Your task to perform on an android device: uninstall "Nova Launcher" Image 0: 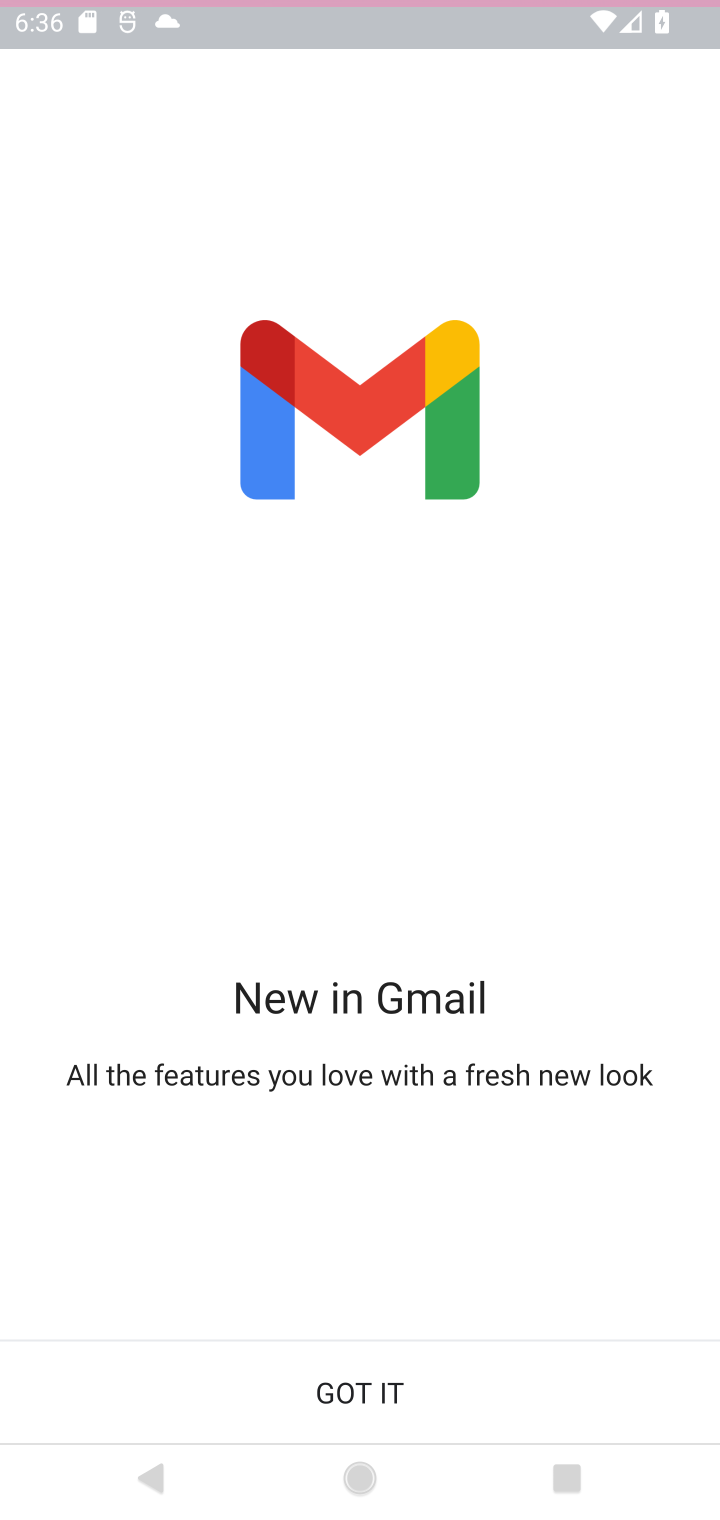
Step 0: press home button
Your task to perform on an android device: uninstall "Nova Launcher" Image 1: 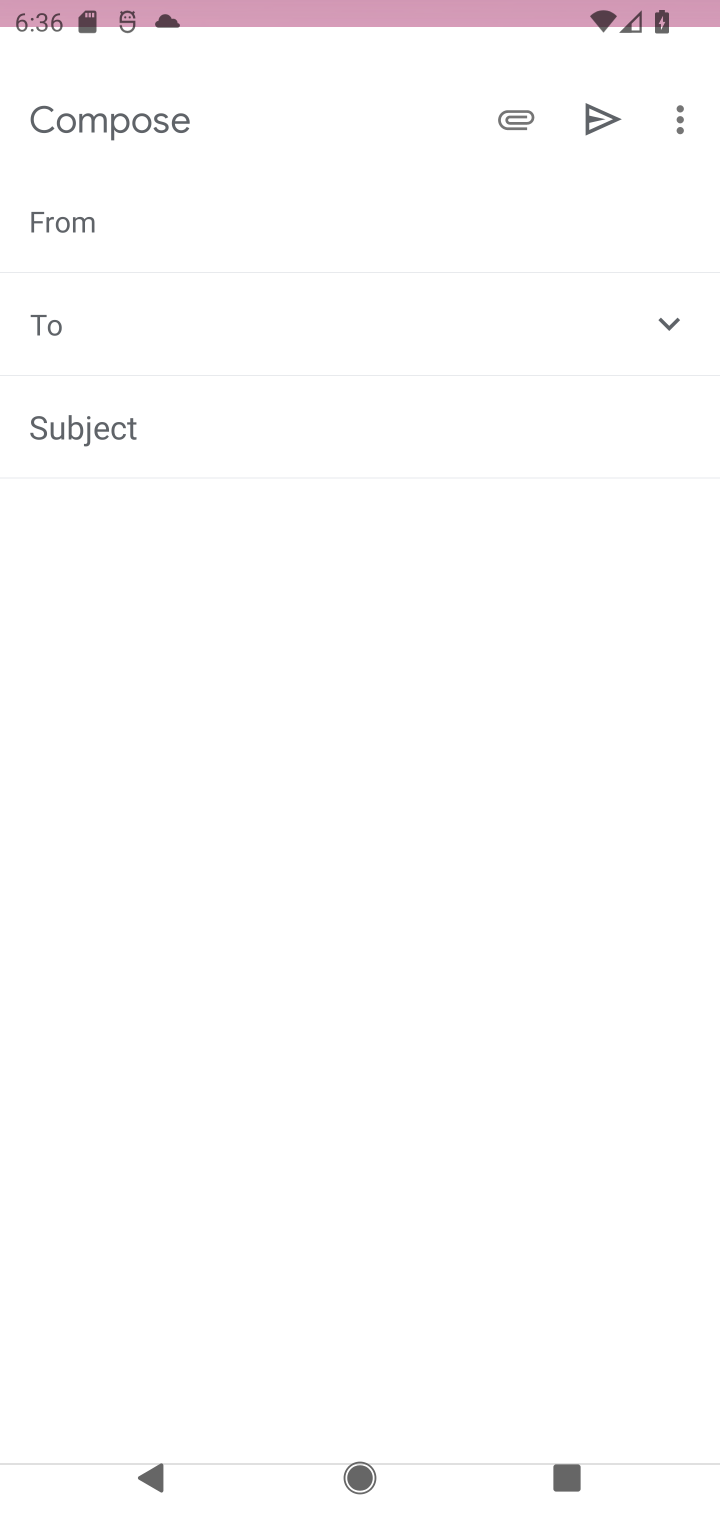
Step 1: press home button
Your task to perform on an android device: uninstall "Nova Launcher" Image 2: 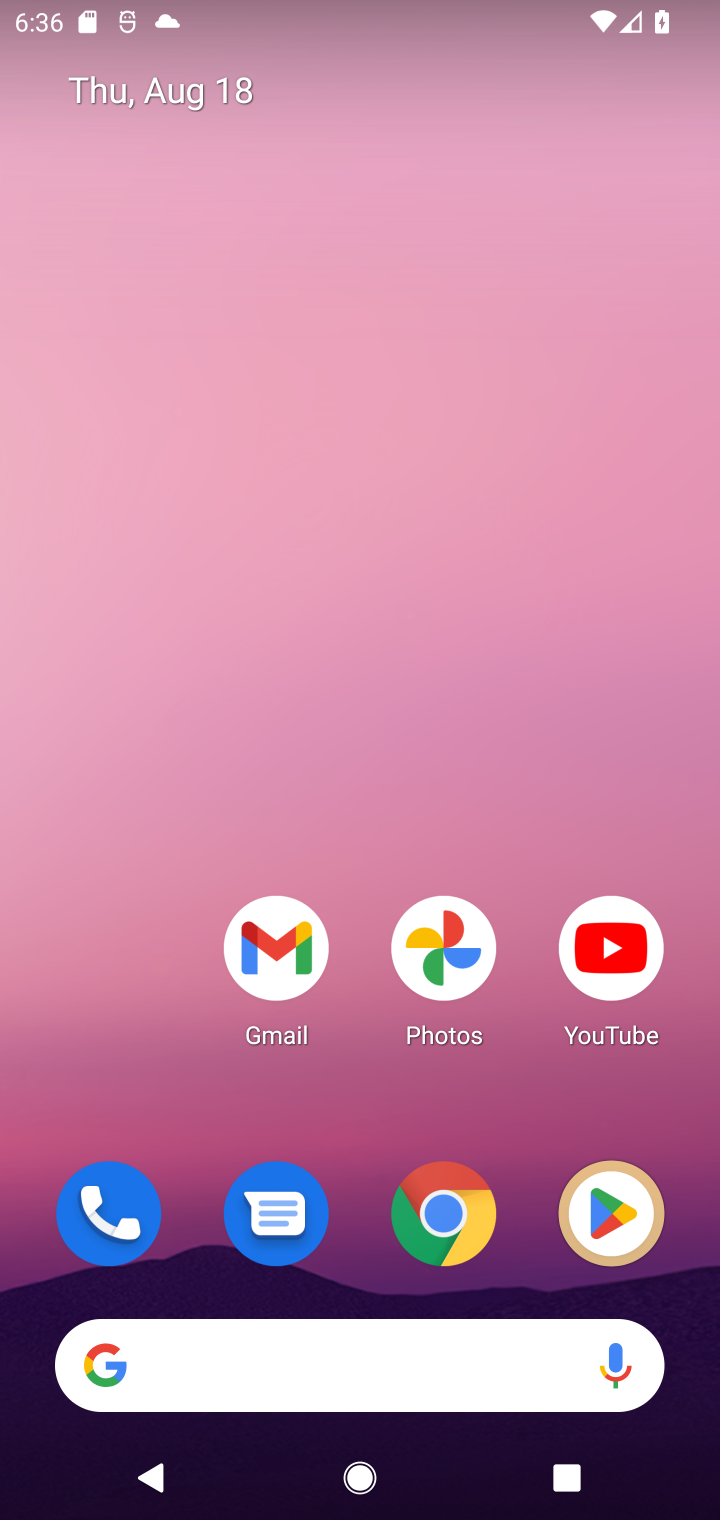
Step 2: press home button
Your task to perform on an android device: uninstall "Nova Launcher" Image 3: 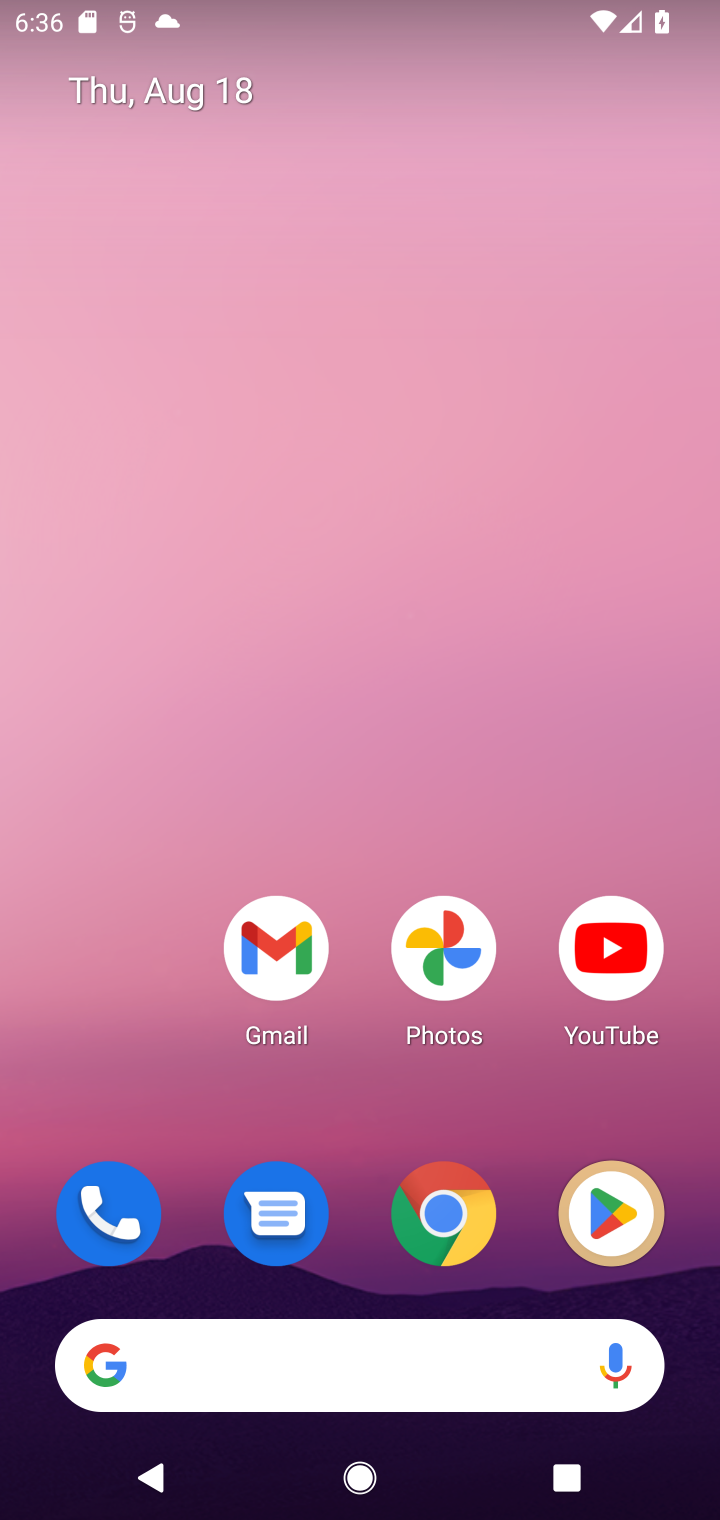
Step 3: click (604, 1204)
Your task to perform on an android device: uninstall "Nova Launcher" Image 4: 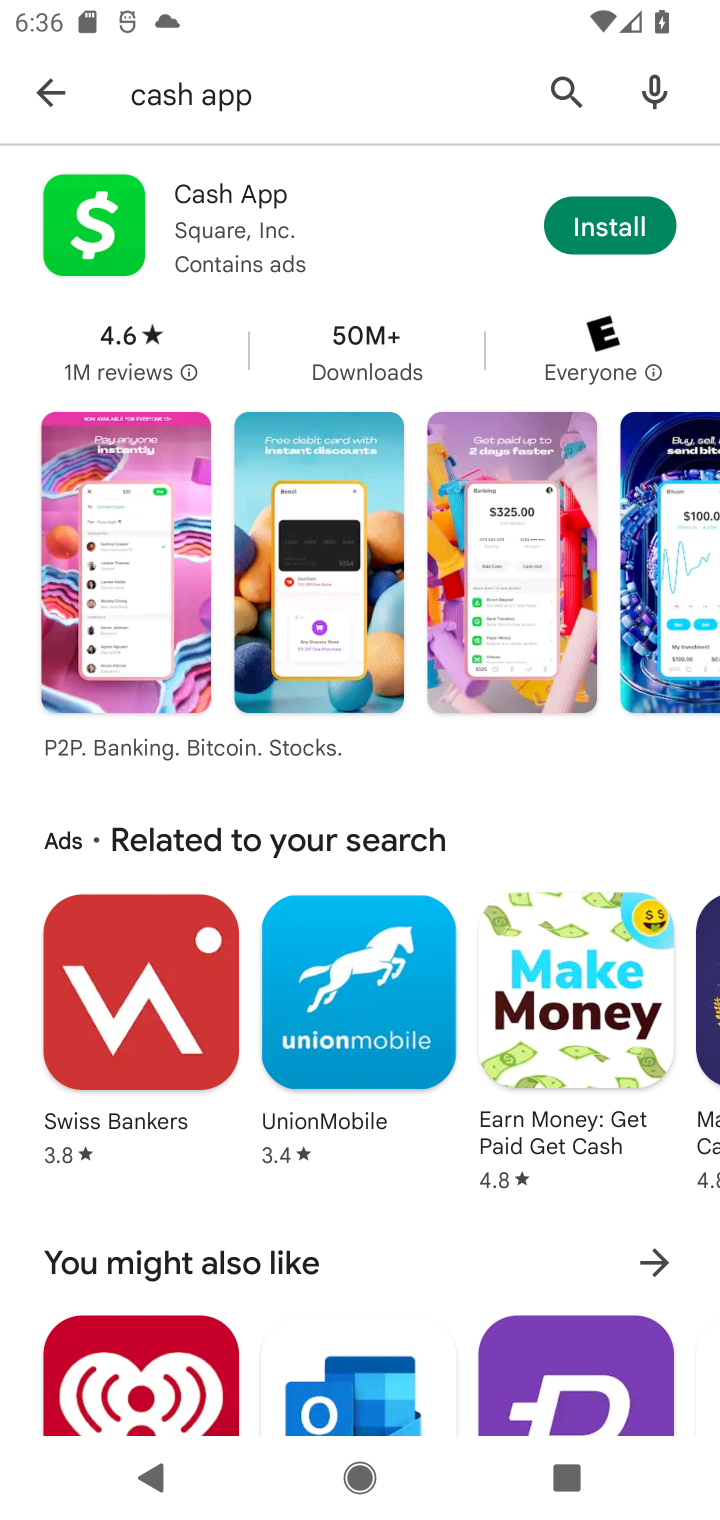
Step 4: click (566, 95)
Your task to perform on an android device: uninstall "Nova Launcher" Image 5: 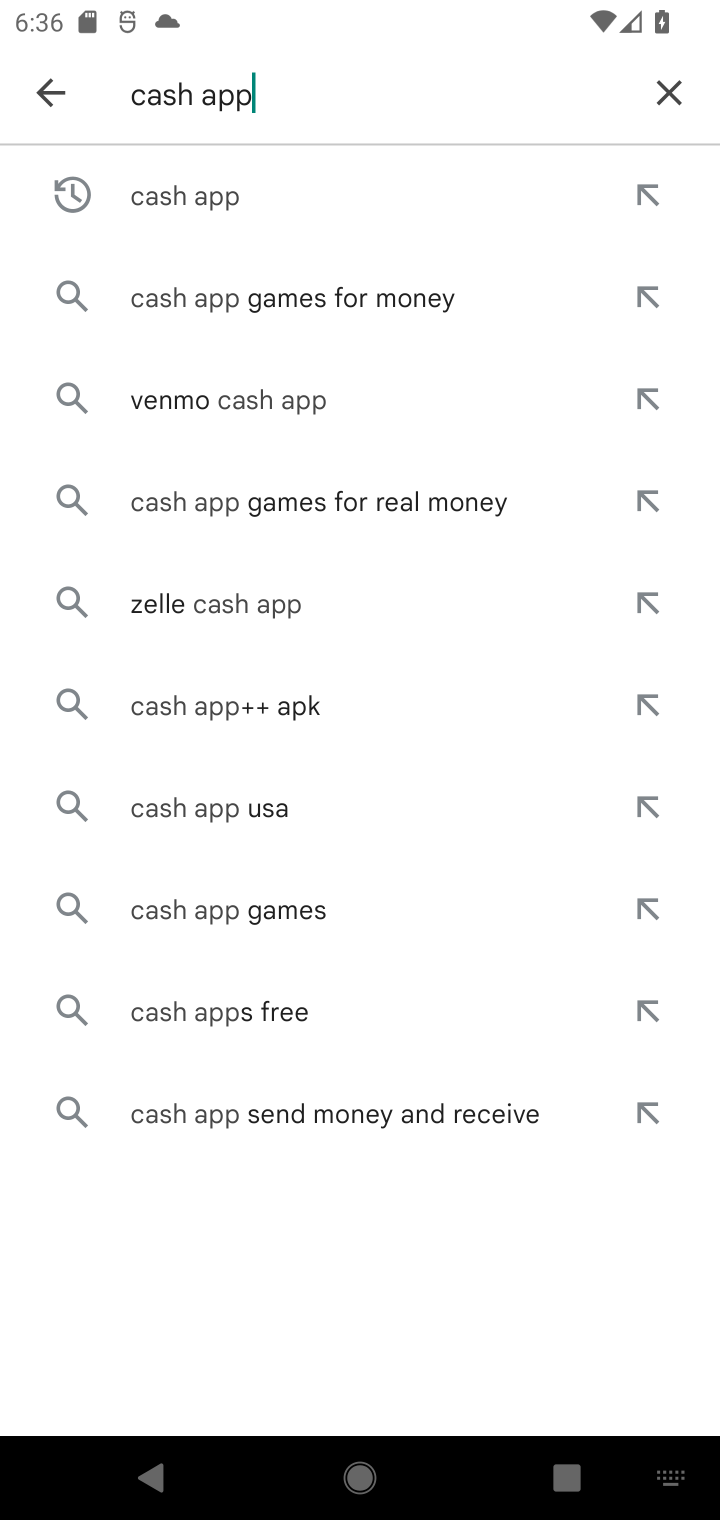
Step 5: click (659, 97)
Your task to perform on an android device: uninstall "Nova Launcher" Image 6: 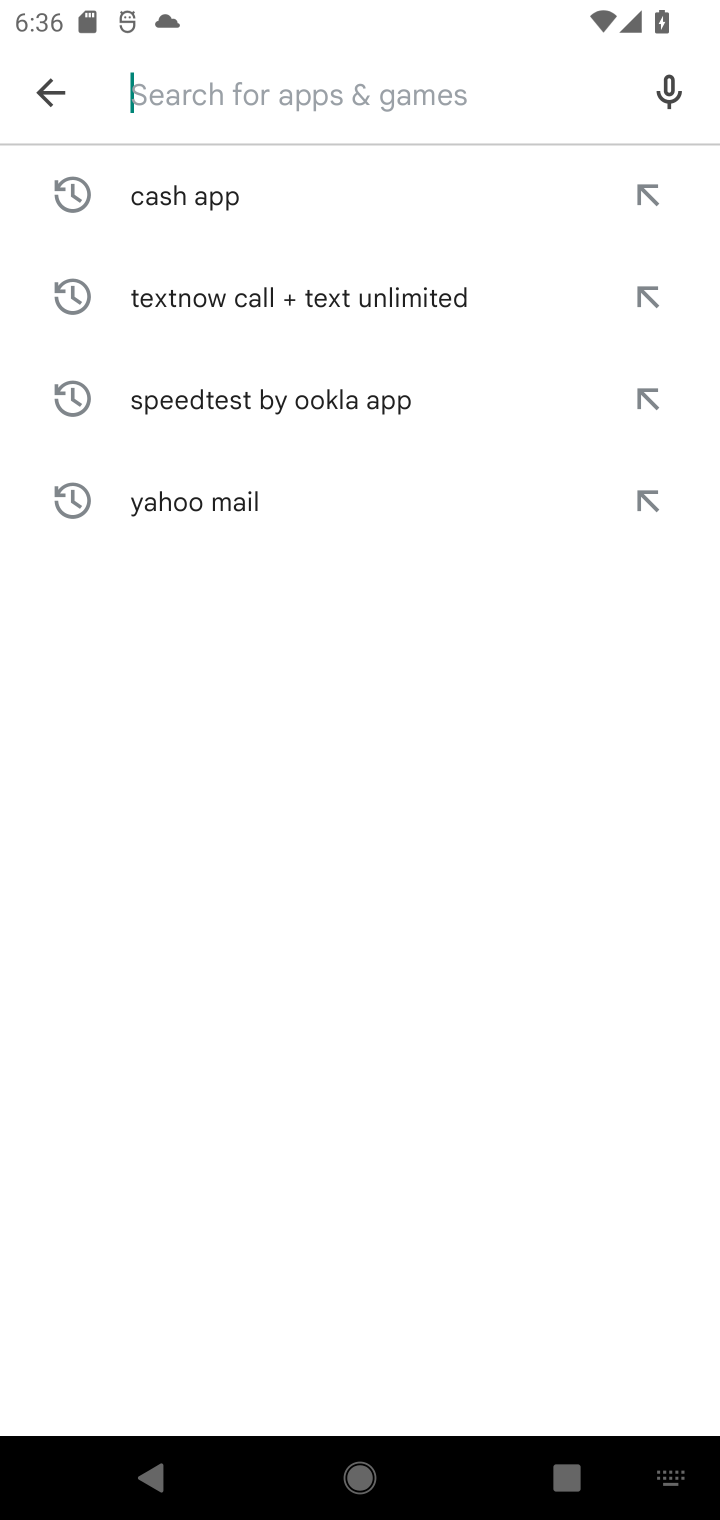
Step 6: type "Nova Launcher"
Your task to perform on an android device: uninstall "Nova Launcher" Image 7: 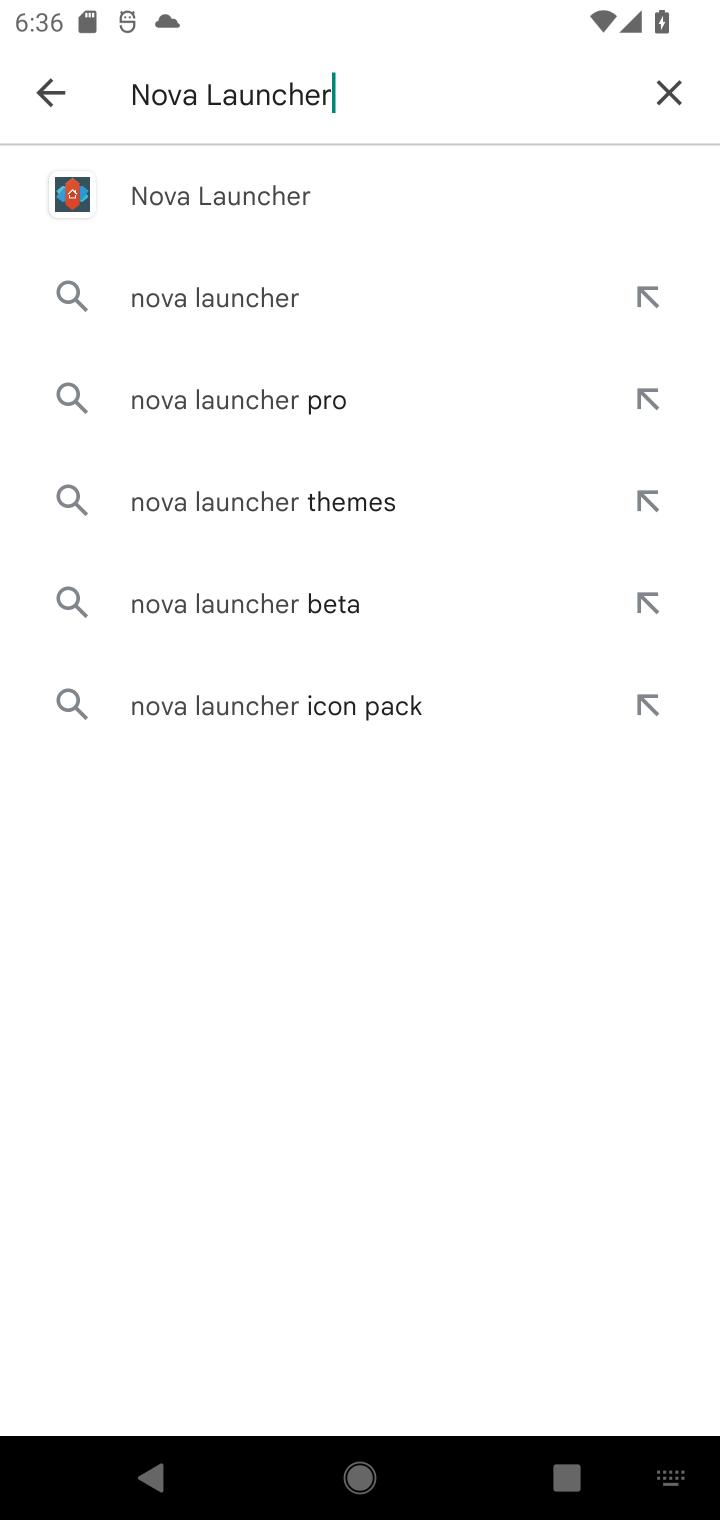
Step 7: click (328, 187)
Your task to perform on an android device: uninstall "Nova Launcher" Image 8: 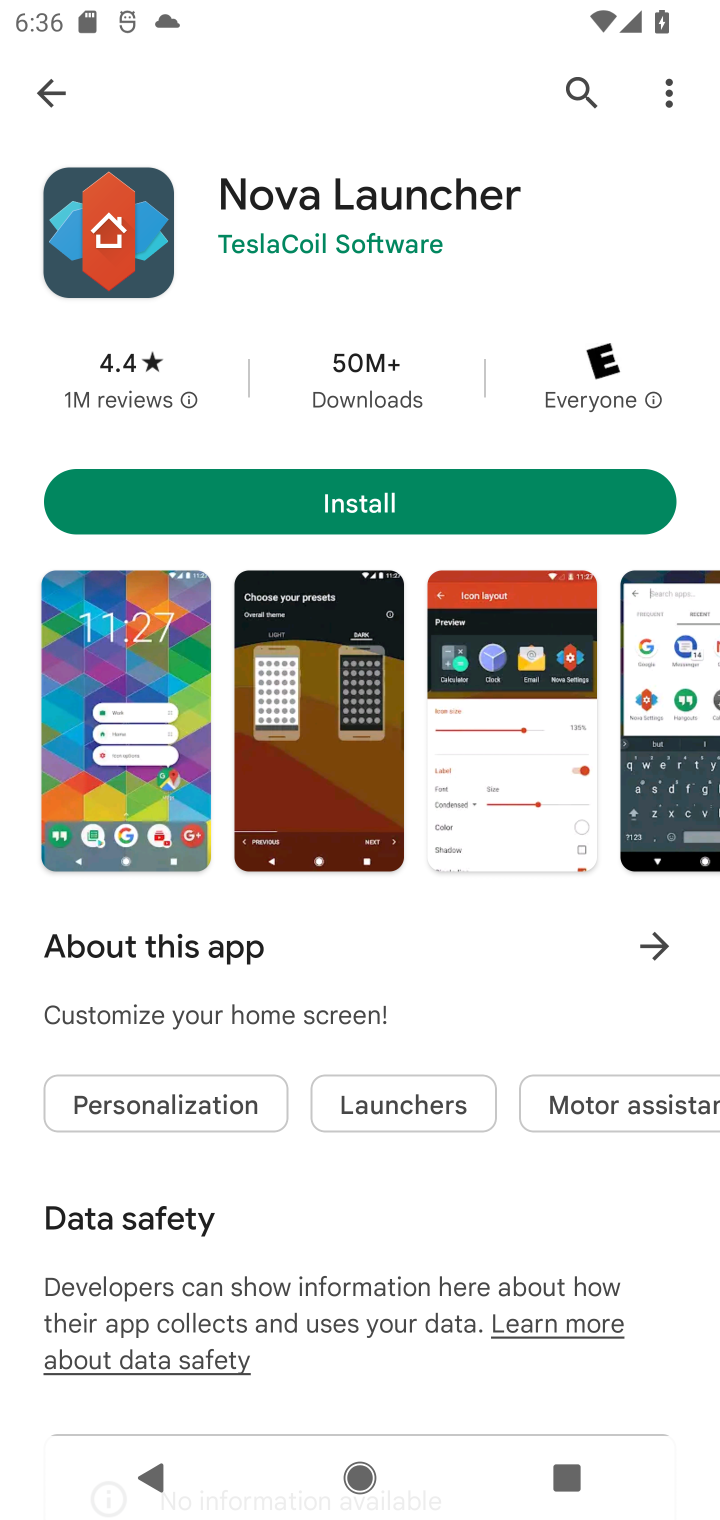
Step 8: task complete